Your task to perform on an android device: Do I have any events this weekend? Image 0: 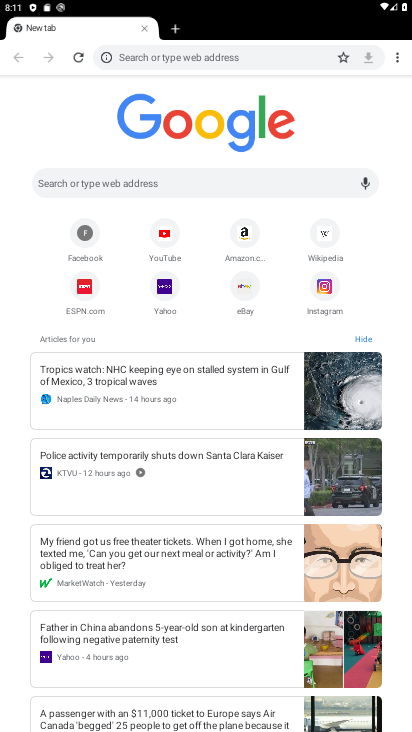
Step 0: drag from (313, 632) to (261, 425)
Your task to perform on an android device: Do I have any events this weekend? Image 1: 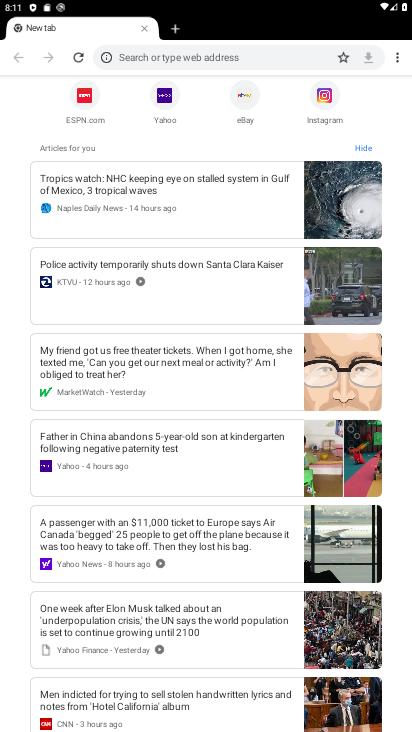
Step 1: press home button
Your task to perform on an android device: Do I have any events this weekend? Image 2: 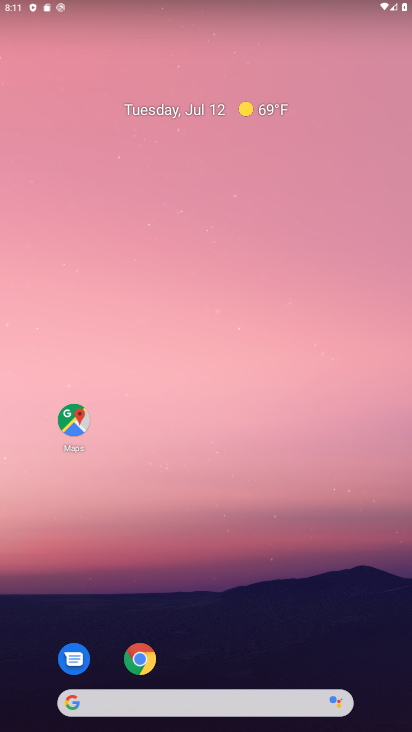
Step 2: drag from (393, 640) to (246, 122)
Your task to perform on an android device: Do I have any events this weekend? Image 3: 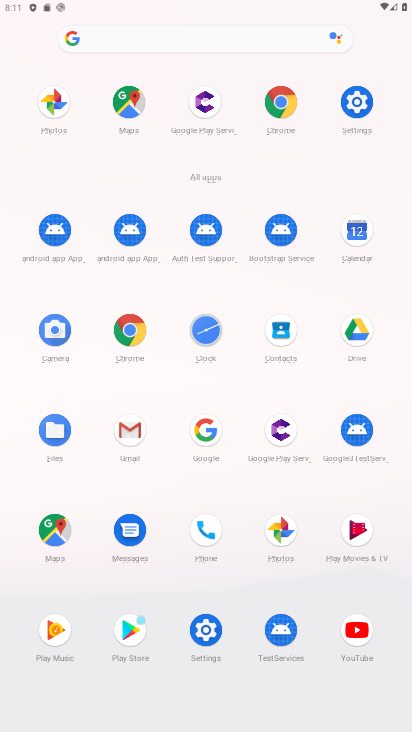
Step 3: click (356, 228)
Your task to perform on an android device: Do I have any events this weekend? Image 4: 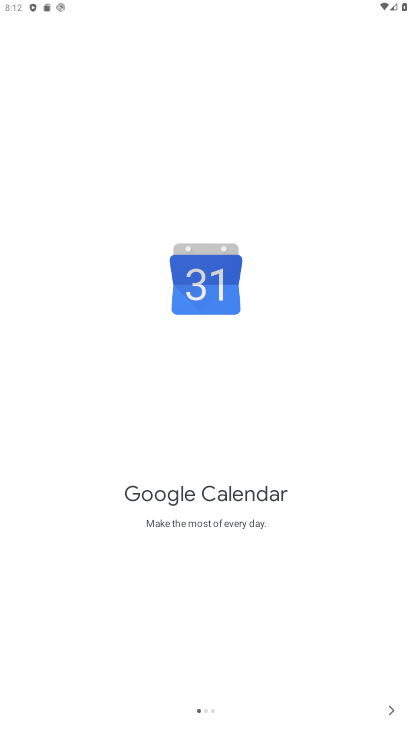
Step 4: click (394, 712)
Your task to perform on an android device: Do I have any events this weekend? Image 5: 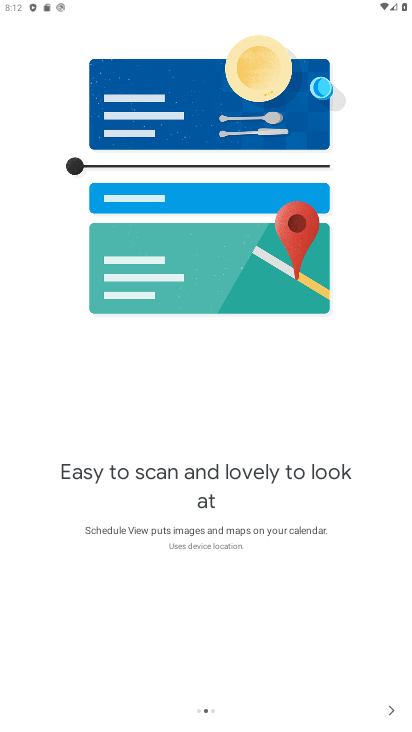
Step 5: click (394, 712)
Your task to perform on an android device: Do I have any events this weekend? Image 6: 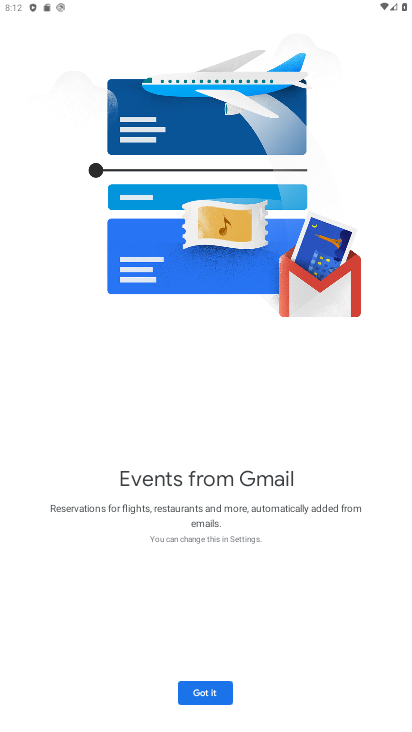
Step 6: click (218, 696)
Your task to perform on an android device: Do I have any events this weekend? Image 7: 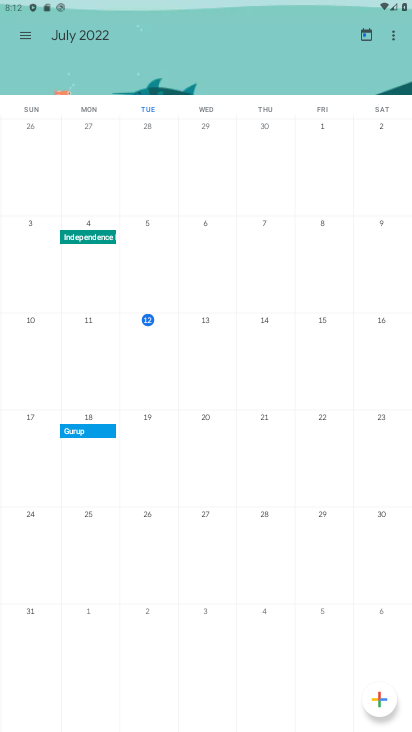
Step 7: click (26, 34)
Your task to perform on an android device: Do I have any events this weekend? Image 8: 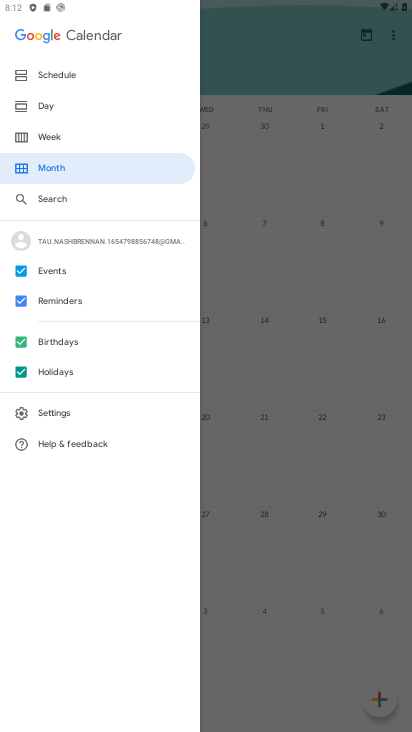
Step 8: click (19, 367)
Your task to perform on an android device: Do I have any events this weekend? Image 9: 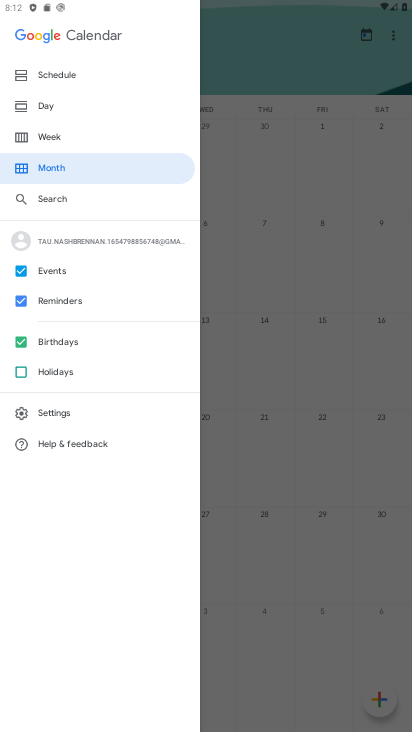
Step 9: click (22, 335)
Your task to perform on an android device: Do I have any events this weekend? Image 10: 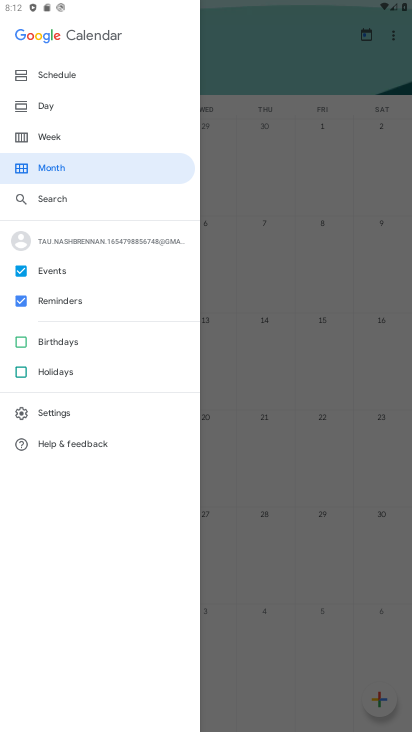
Step 10: click (18, 303)
Your task to perform on an android device: Do I have any events this weekend? Image 11: 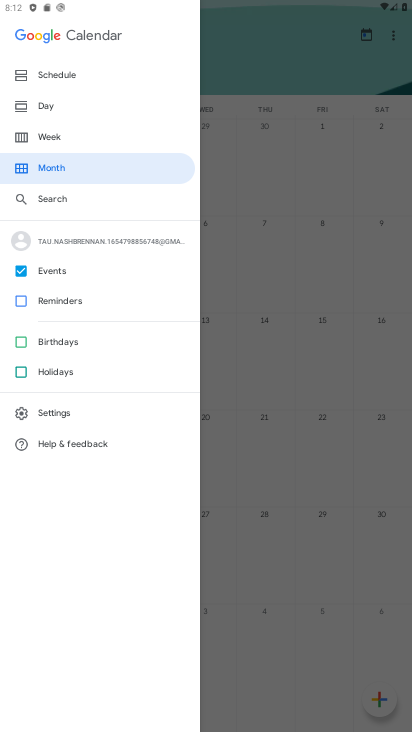
Step 11: click (43, 138)
Your task to perform on an android device: Do I have any events this weekend? Image 12: 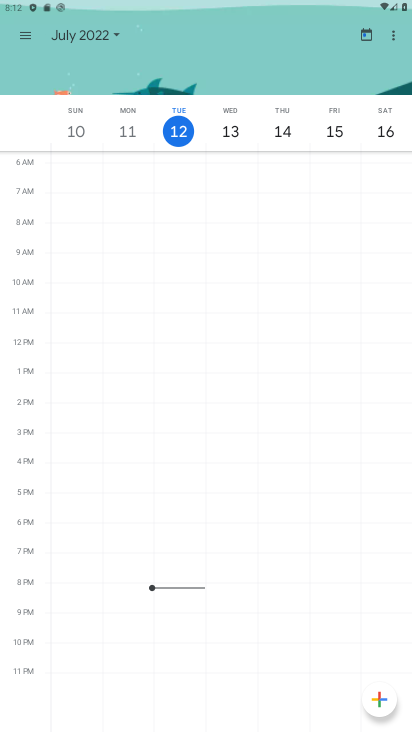
Step 12: task complete